Your task to perform on an android device: Go to Yahoo.com Image 0: 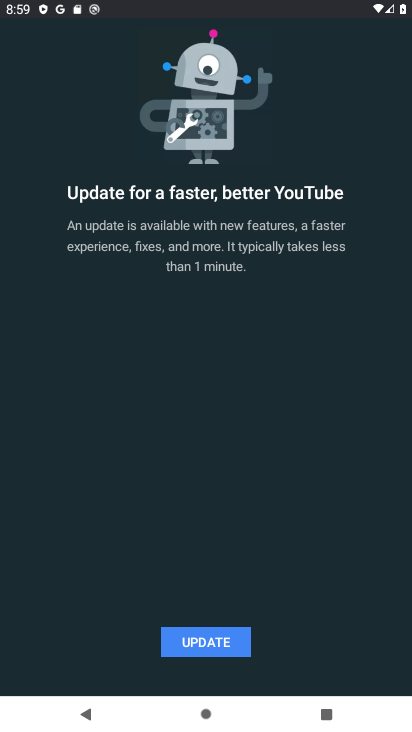
Step 0: press home button
Your task to perform on an android device: Go to Yahoo.com Image 1: 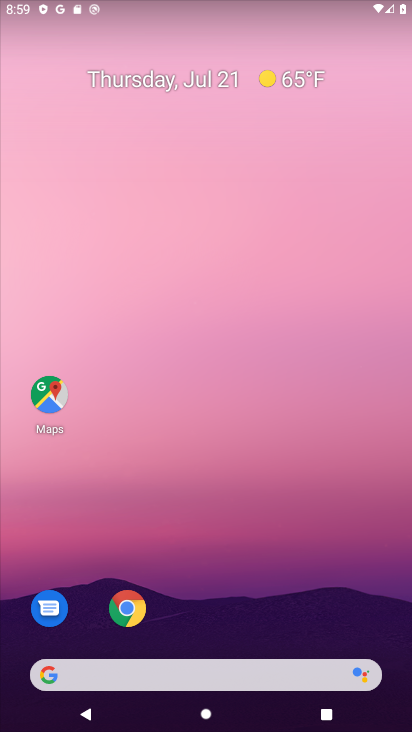
Step 1: click (303, 671)
Your task to perform on an android device: Go to Yahoo.com Image 2: 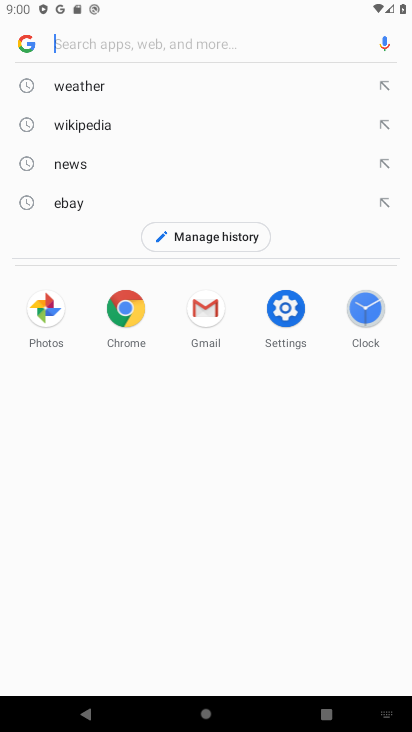
Step 2: type " Yahoo.com"
Your task to perform on an android device: Go to Yahoo.com Image 3: 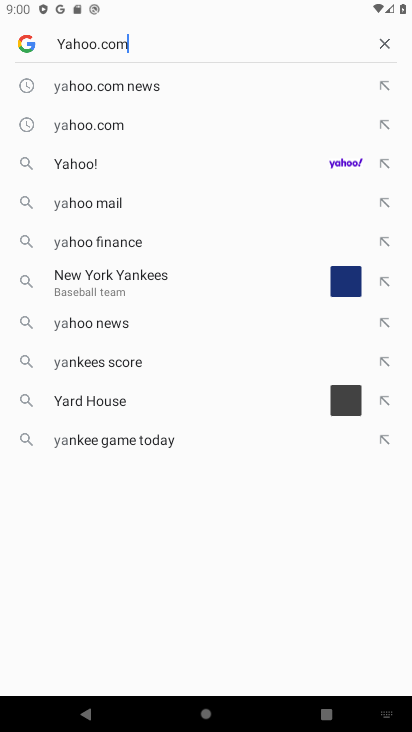
Step 3: type ""
Your task to perform on an android device: Go to Yahoo.com Image 4: 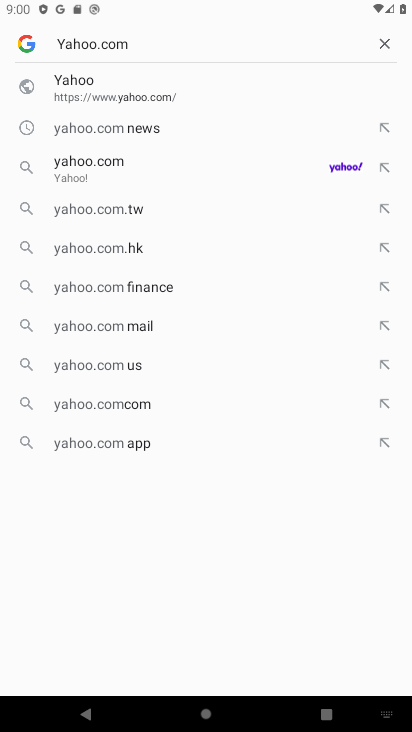
Step 4: press enter
Your task to perform on an android device: Go to Yahoo.com Image 5: 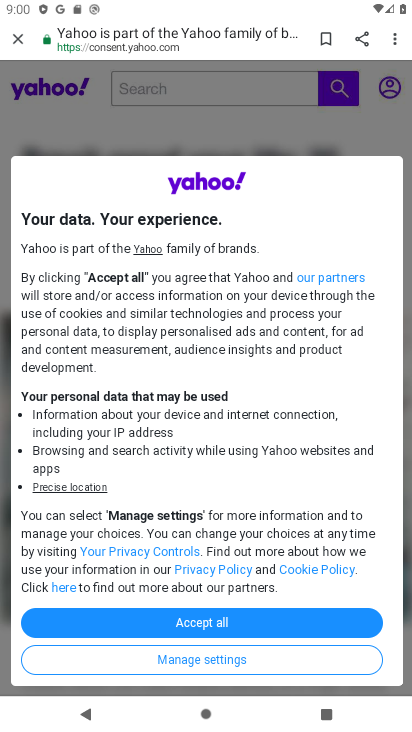
Step 5: task complete